Your task to perform on an android device: Open accessibility settings Image 0: 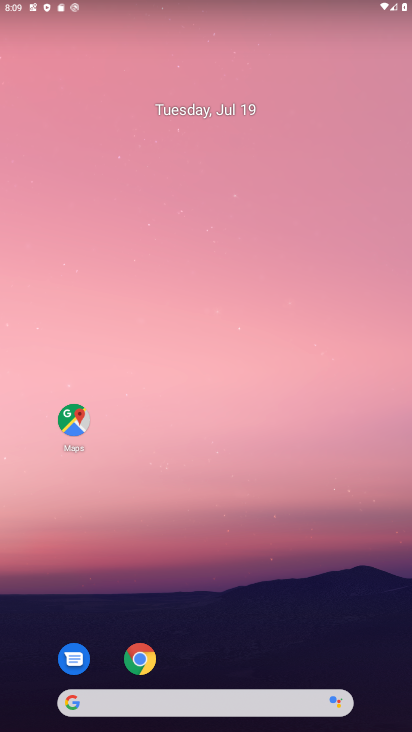
Step 0: drag from (249, 677) to (253, 40)
Your task to perform on an android device: Open accessibility settings Image 1: 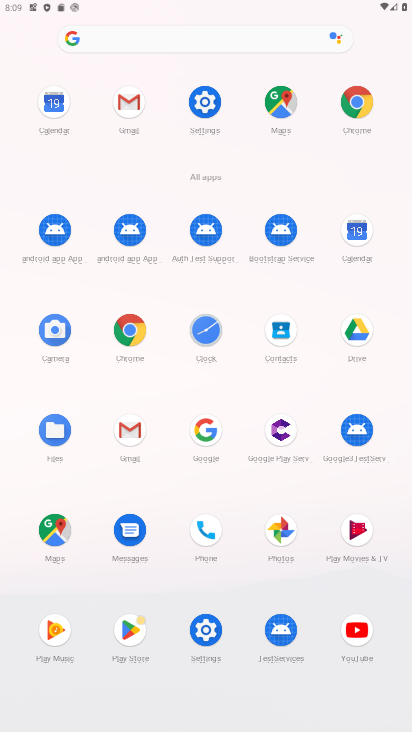
Step 1: click (206, 103)
Your task to perform on an android device: Open accessibility settings Image 2: 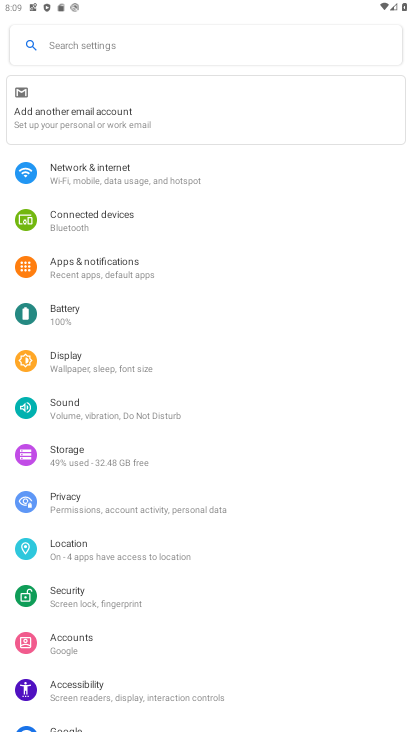
Step 2: click (89, 691)
Your task to perform on an android device: Open accessibility settings Image 3: 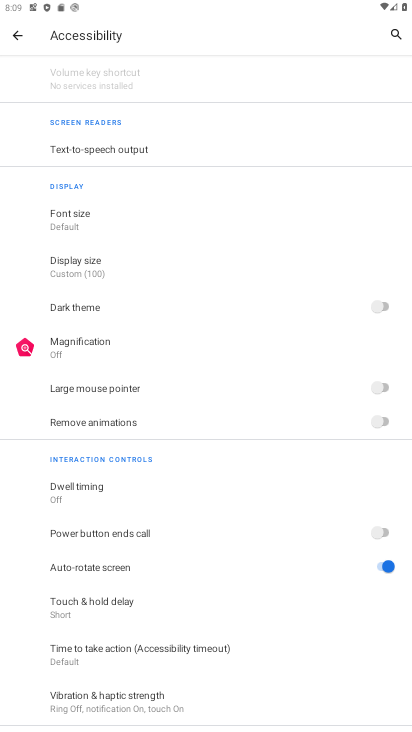
Step 3: task complete